Your task to perform on an android device: Open the calendar app, open the side menu, and click the "Day" option Image 0: 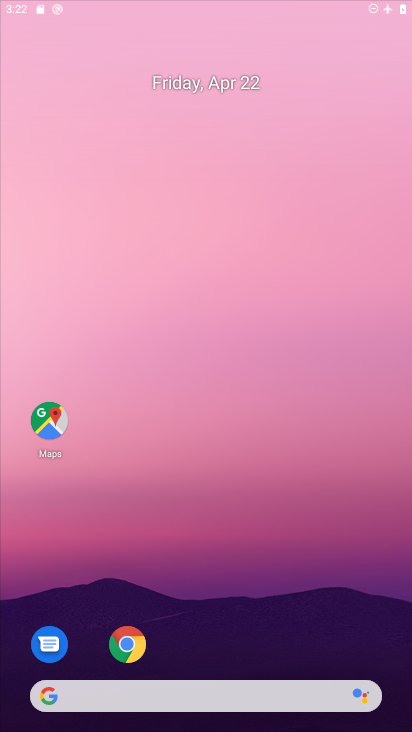
Step 0: click (368, 98)
Your task to perform on an android device: Open the calendar app, open the side menu, and click the "Day" option Image 1: 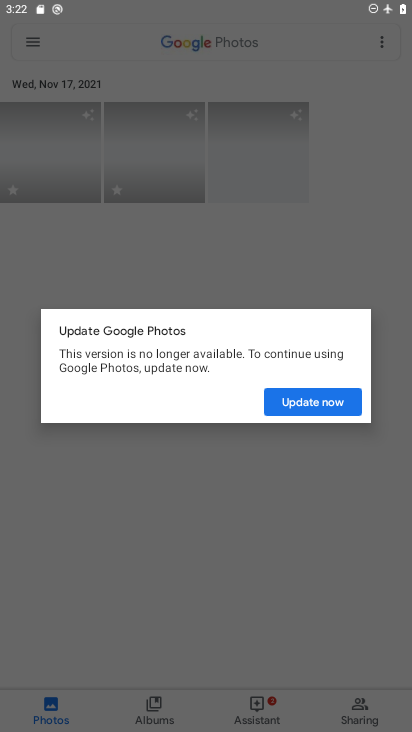
Step 1: press home button
Your task to perform on an android device: Open the calendar app, open the side menu, and click the "Day" option Image 2: 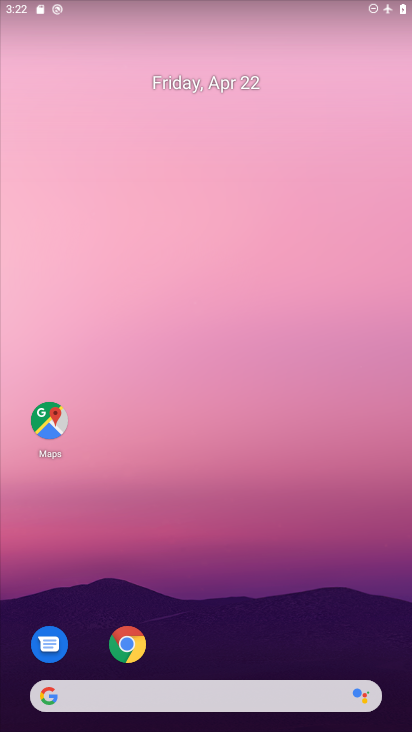
Step 2: drag from (290, 500) to (306, 198)
Your task to perform on an android device: Open the calendar app, open the side menu, and click the "Day" option Image 3: 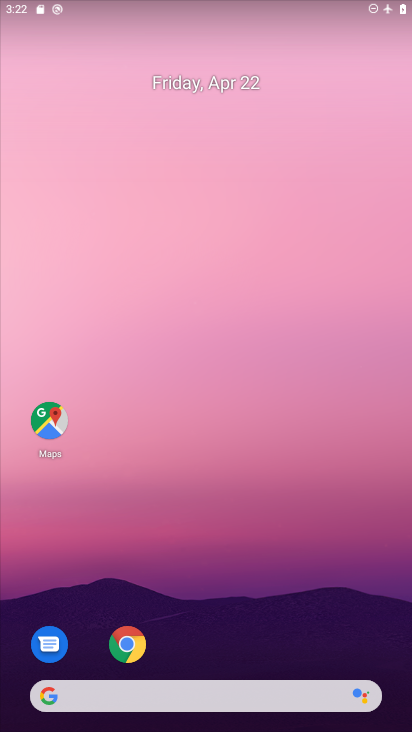
Step 3: drag from (271, 615) to (276, 160)
Your task to perform on an android device: Open the calendar app, open the side menu, and click the "Day" option Image 4: 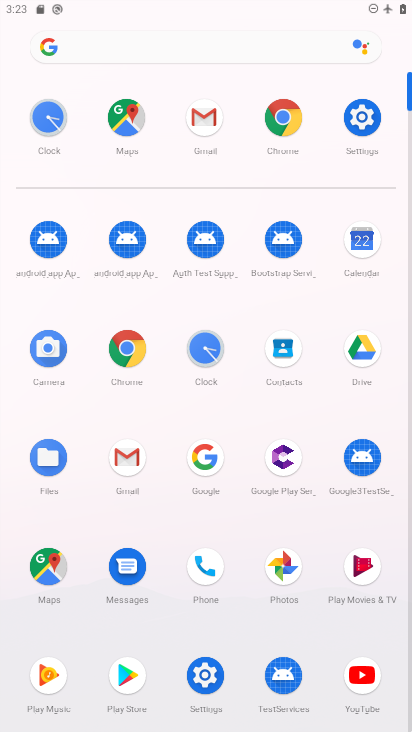
Step 4: click (363, 236)
Your task to perform on an android device: Open the calendar app, open the side menu, and click the "Day" option Image 5: 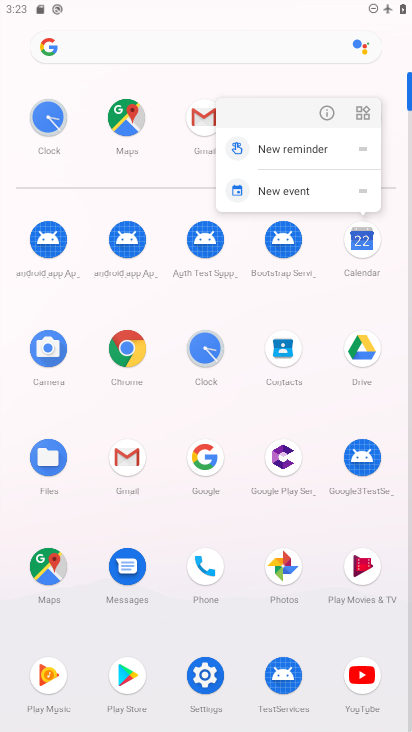
Step 5: click (362, 247)
Your task to perform on an android device: Open the calendar app, open the side menu, and click the "Day" option Image 6: 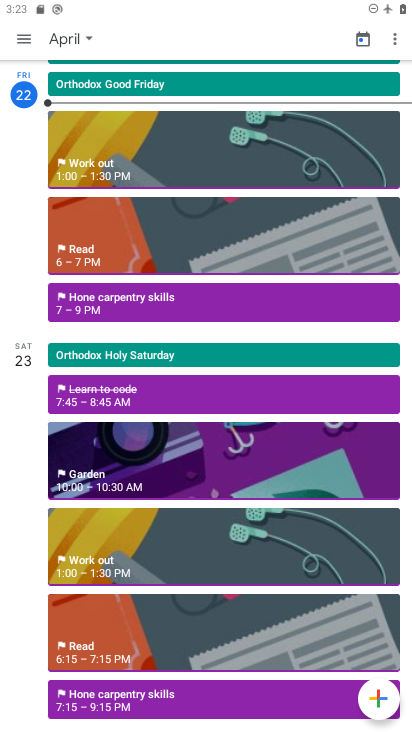
Step 6: click (28, 37)
Your task to perform on an android device: Open the calendar app, open the side menu, and click the "Day" option Image 7: 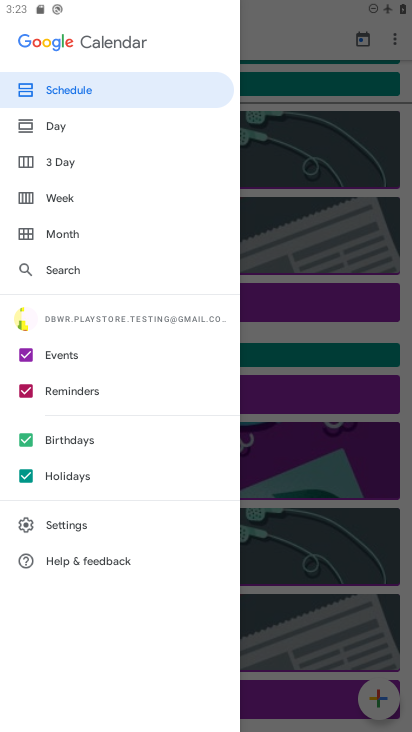
Step 7: click (84, 129)
Your task to perform on an android device: Open the calendar app, open the side menu, and click the "Day" option Image 8: 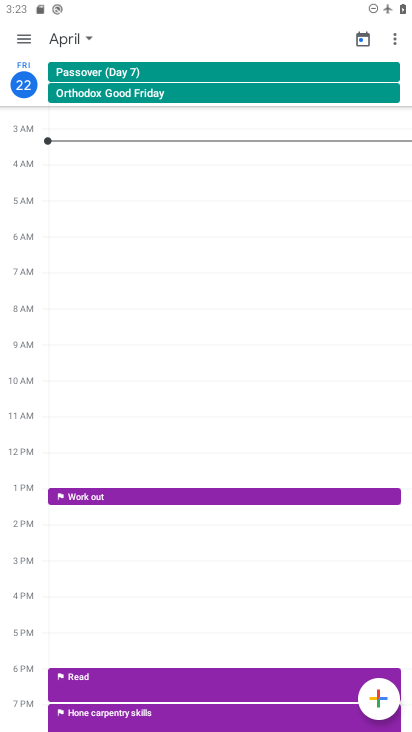
Step 8: task complete